Your task to perform on an android device: change the clock display to analog Image 0: 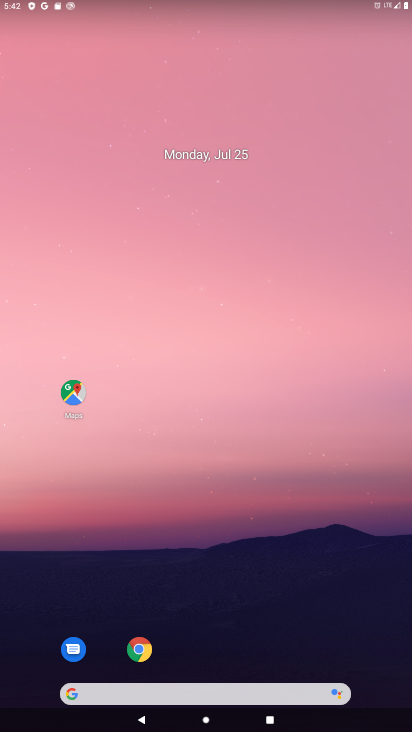
Step 0: drag from (284, 693) to (408, 6)
Your task to perform on an android device: change the clock display to analog Image 1: 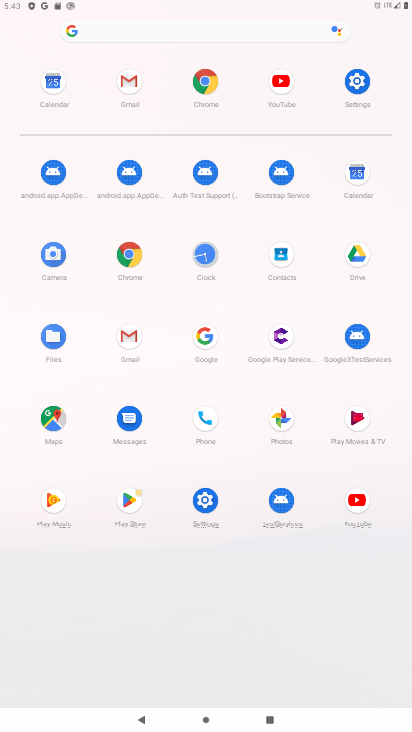
Step 1: click (203, 254)
Your task to perform on an android device: change the clock display to analog Image 2: 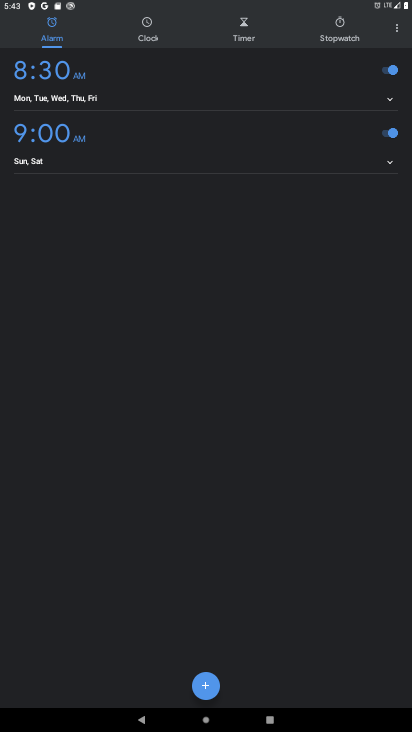
Step 2: click (395, 31)
Your task to perform on an android device: change the clock display to analog Image 3: 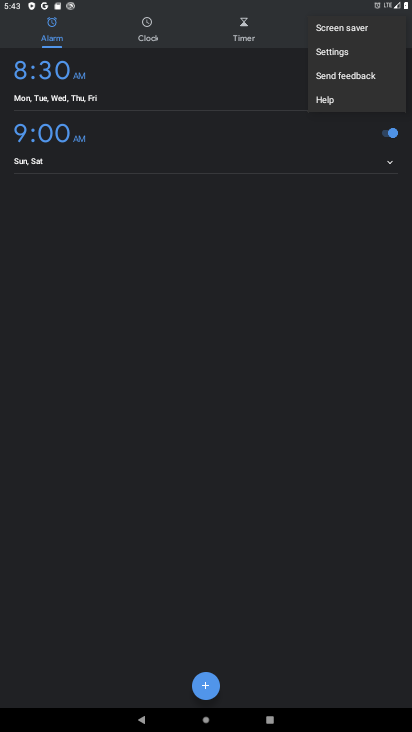
Step 3: click (351, 55)
Your task to perform on an android device: change the clock display to analog Image 4: 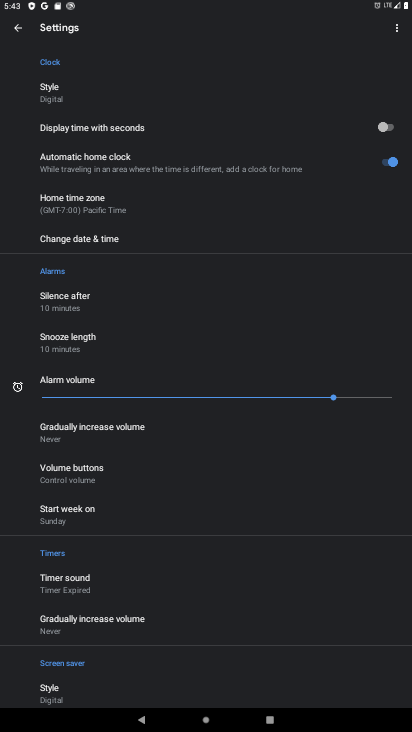
Step 4: click (40, 92)
Your task to perform on an android device: change the clock display to analog Image 5: 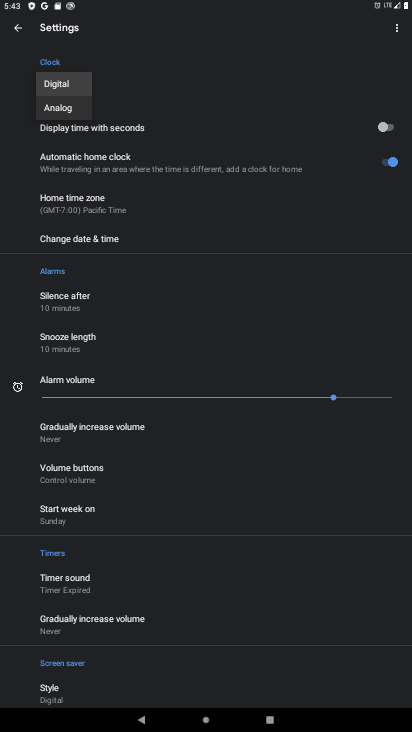
Step 5: click (72, 110)
Your task to perform on an android device: change the clock display to analog Image 6: 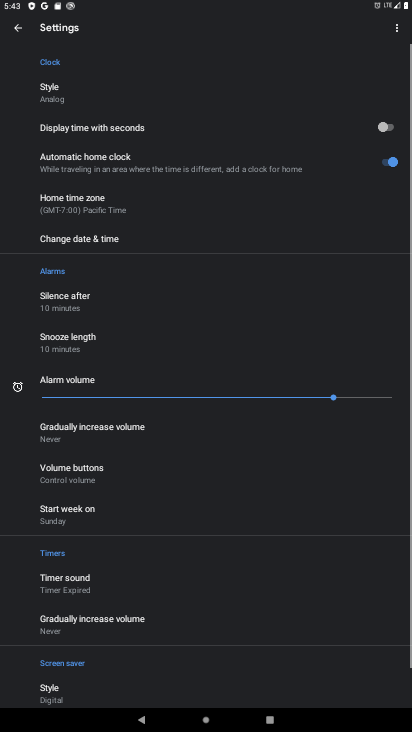
Step 6: task complete